Your task to perform on an android device: Clear the shopping cart on walmart.com. Add "razer deathadder" to the cart on walmart.com Image 0: 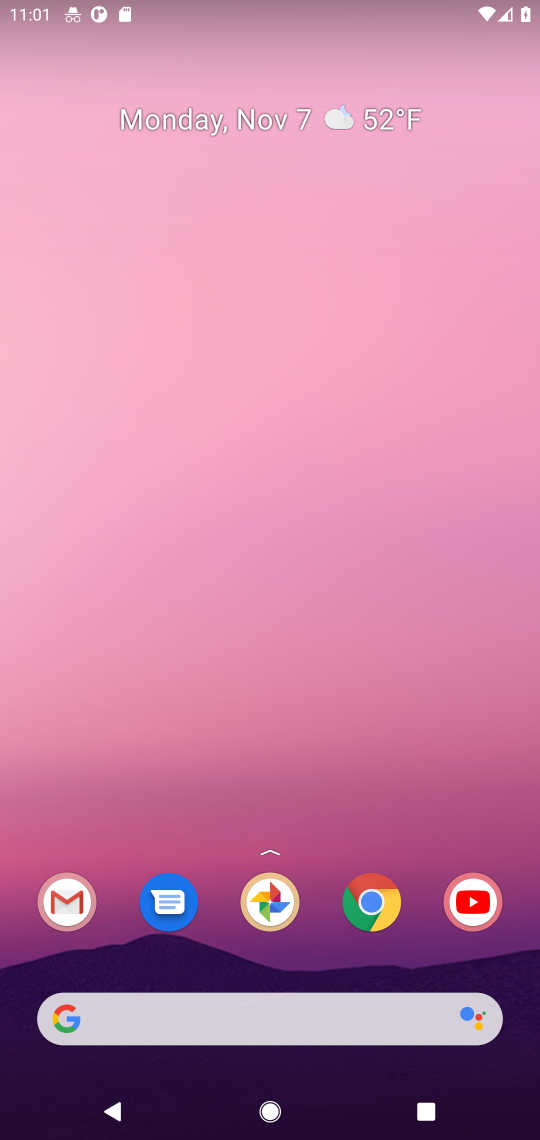
Step 0: press home button
Your task to perform on an android device: Clear the shopping cart on walmart.com. Add "razer deathadder" to the cart on walmart.com Image 1: 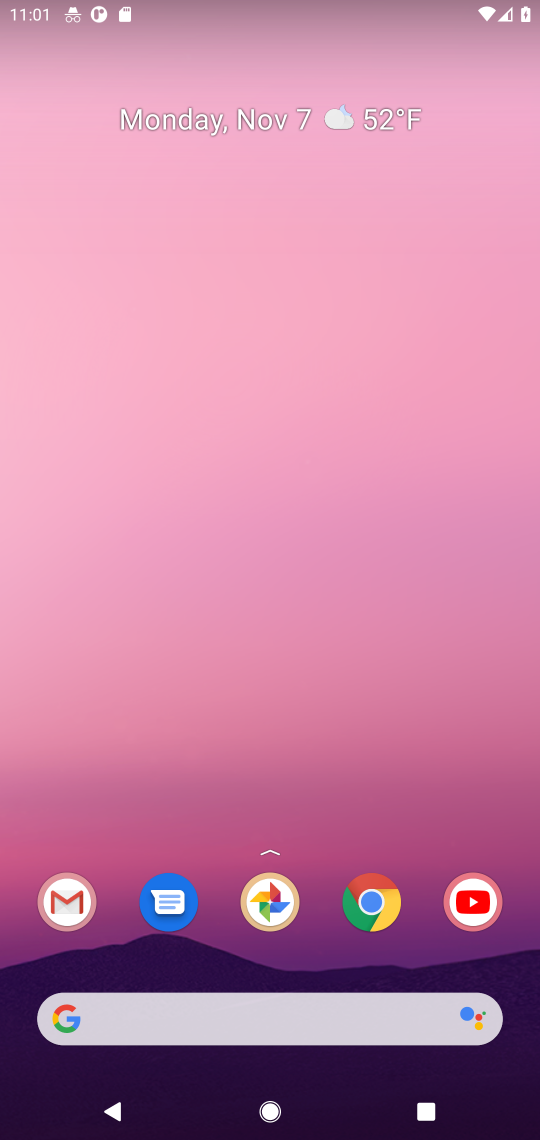
Step 1: click (353, 914)
Your task to perform on an android device: Clear the shopping cart on walmart.com. Add "razer deathadder" to the cart on walmart.com Image 2: 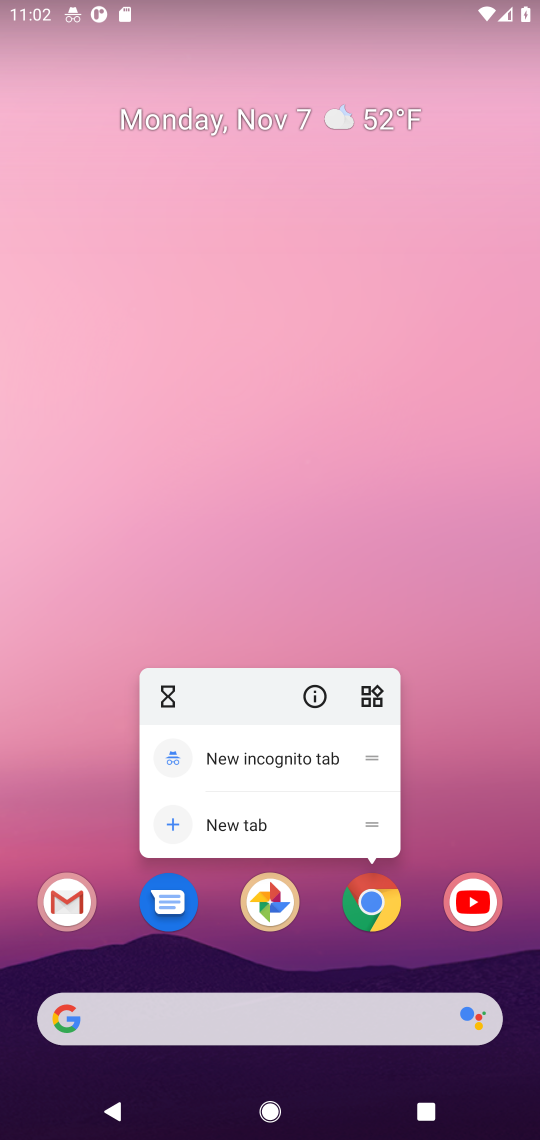
Step 2: click (367, 912)
Your task to perform on an android device: Clear the shopping cart on walmart.com. Add "razer deathadder" to the cart on walmart.com Image 3: 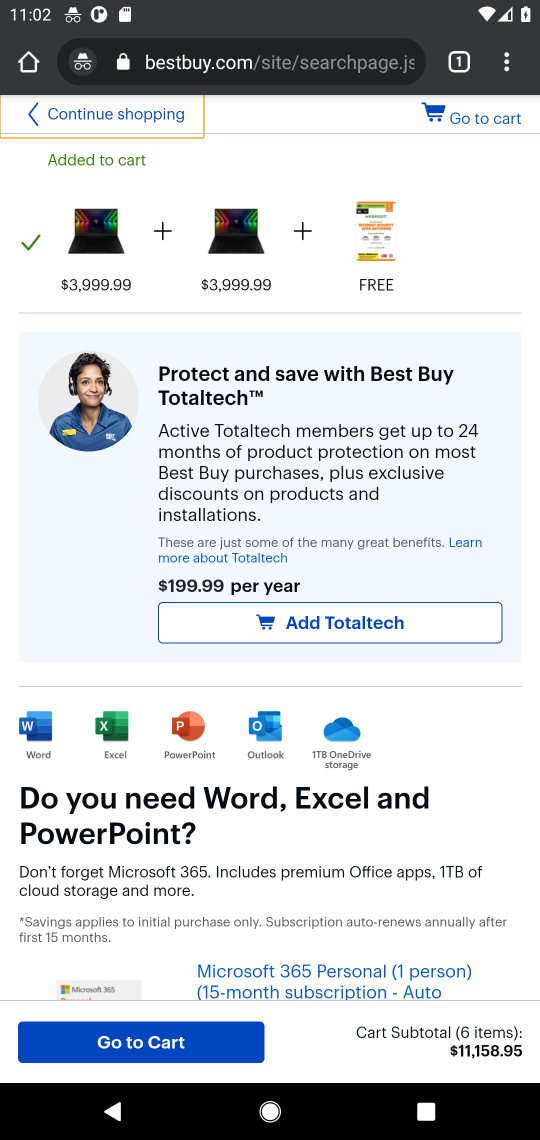
Step 3: click (227, 64)
Your task to perform on an android device: Clear the shopping cart on walmart.com. Add "razer deathadder" to the cart on walmart.com Image 4: 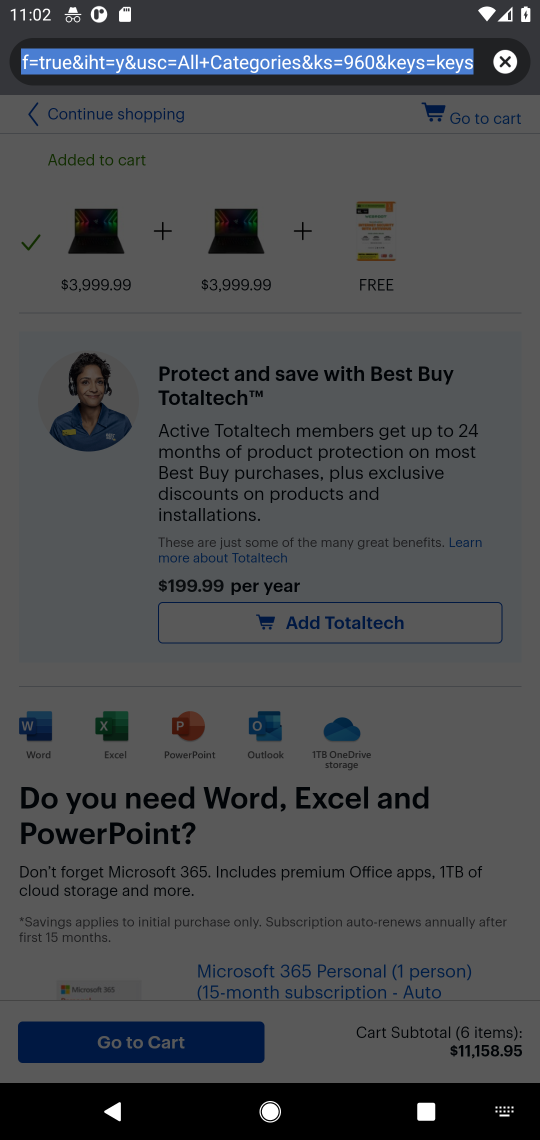
Step 4: type "walmart.com"
Your task to perform on an android device: Clear the shopping cart on walmart.com. Add "razer deathadder" to the cart on walmart.com Image 5: 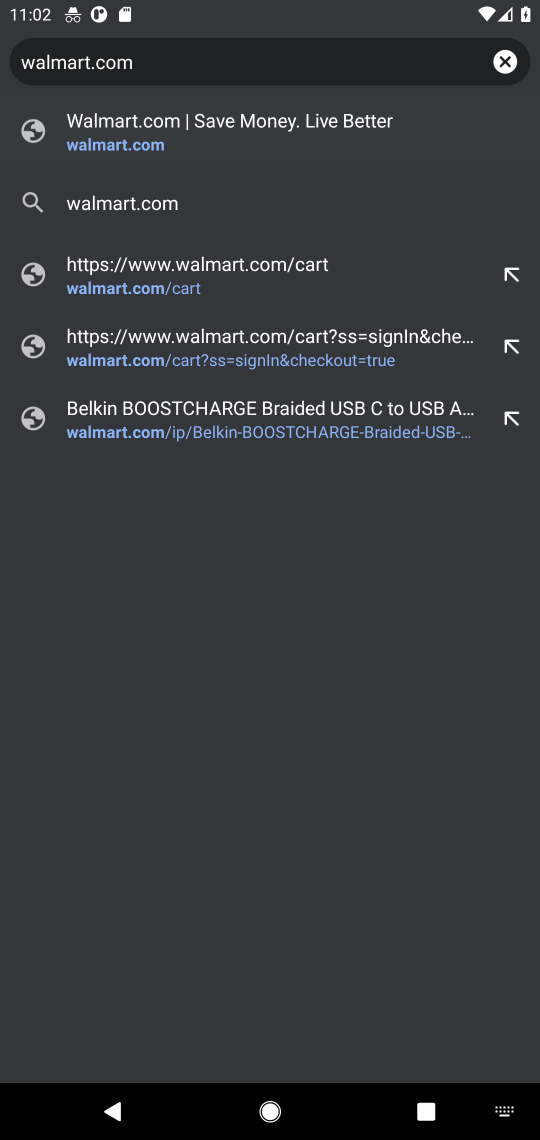
Step 5: click (113, 134)
Your task to perform on an android device: Clear the shopping cart on walmart.com. Add "razer deathadder" to the cart on walmart.com Image 6: 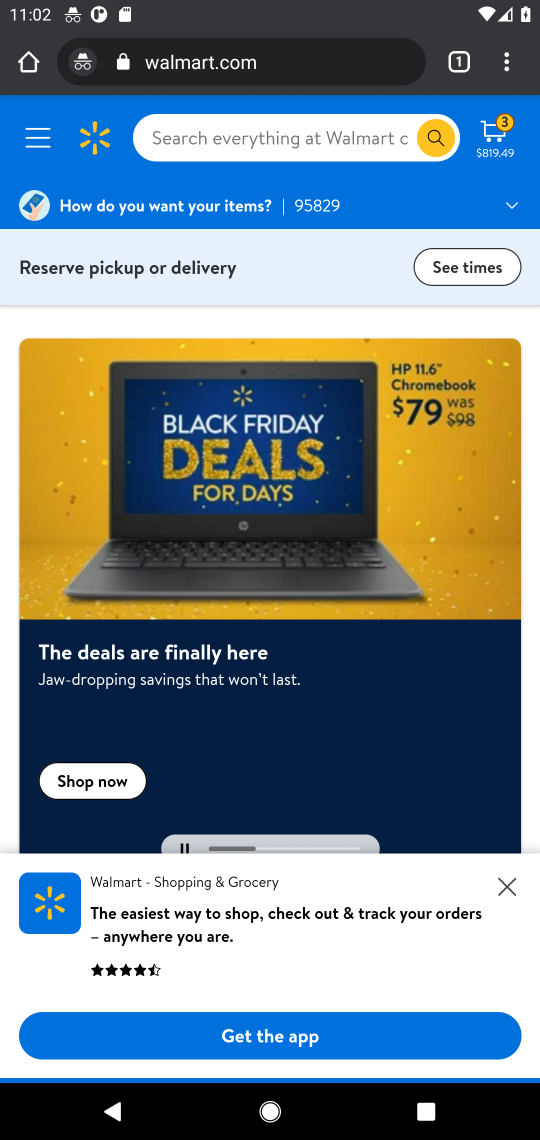
Step 6: click (493, 139)
Your task to perform on an android device: Clear the shopping cart on walmart.com. Add "razer deathadder" to the cart on walmart.com Image 7: 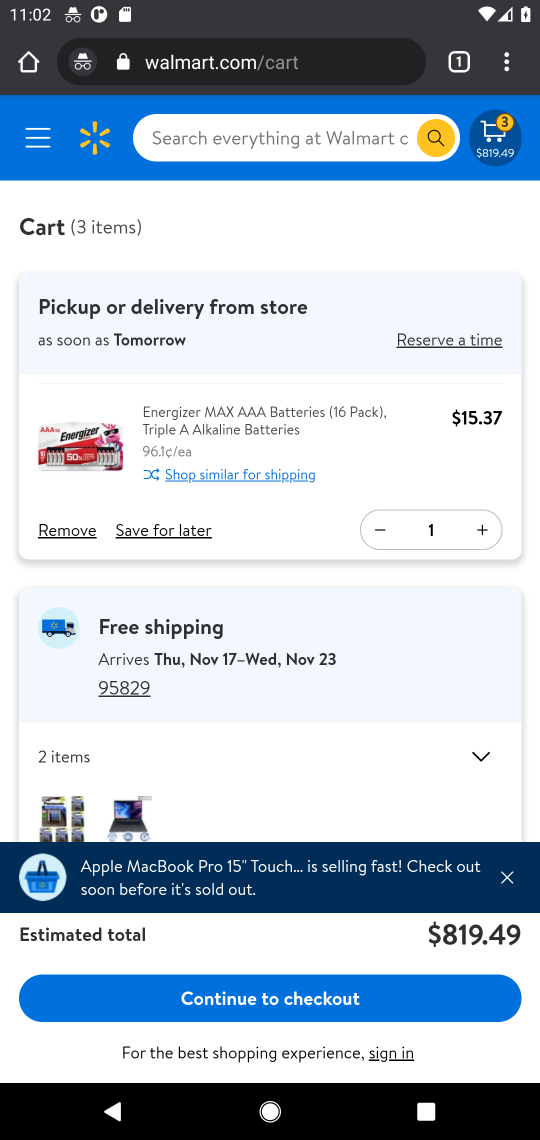
Step 7: click (49, 529)
Your task to perform on an android device: Clear the shopping cart on walmart.com. Add "razer deathadder" to the cart on walmart.com Image 8: 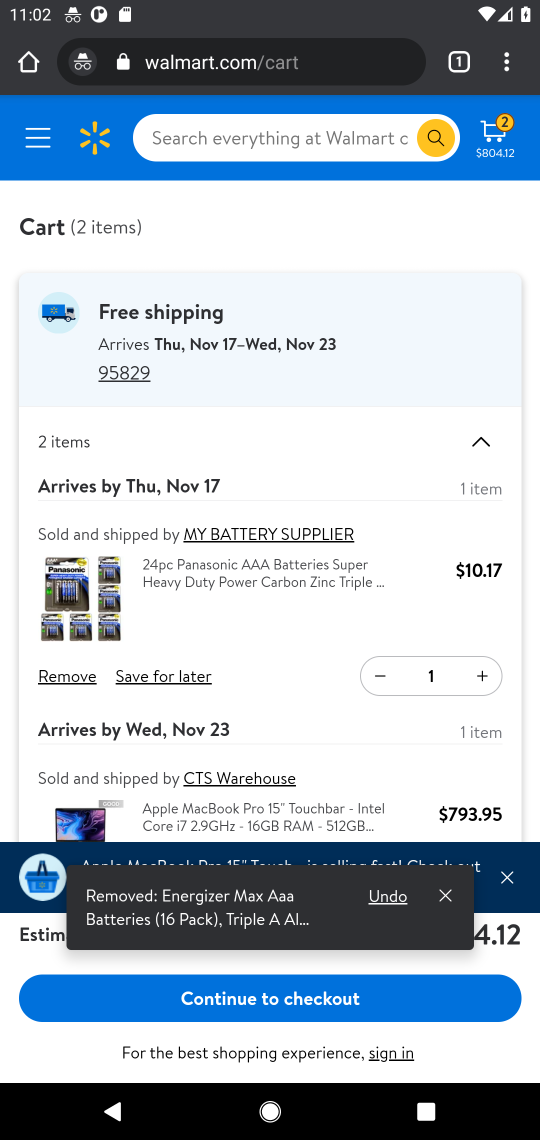
Step 8: click (81, 683)
Your task to perform on an android device: Clear the shopping cart on walmart.com. Add "razer deathadder" to the cart on walmart.com Image 9: 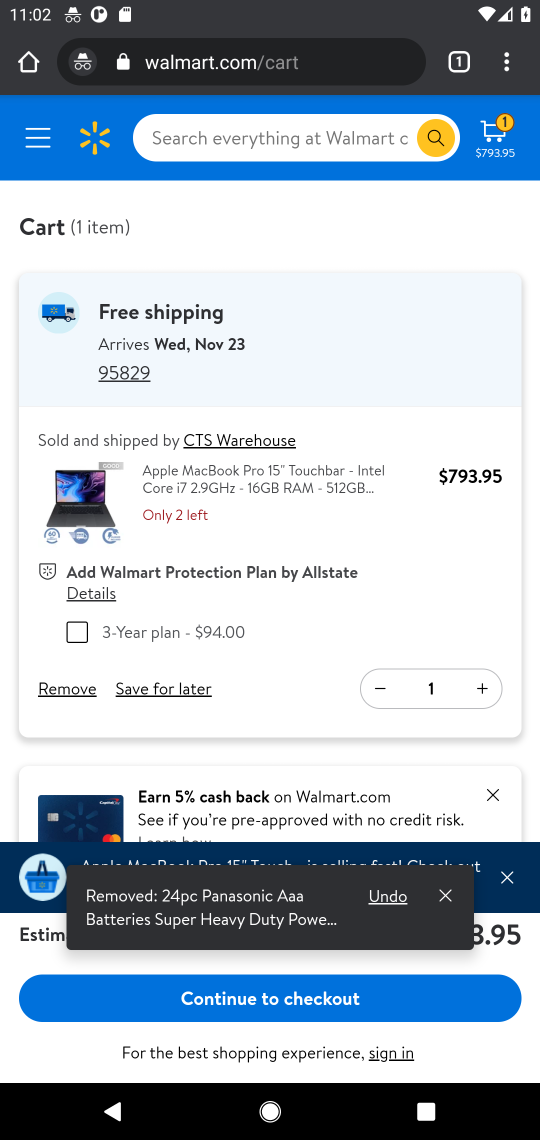
Step 9: click (56, 687)
Your task to perform on an android device: Clear the shopping cart on walmart.com. Add "razer deathadder" to the cart on walmart.com Image 10: 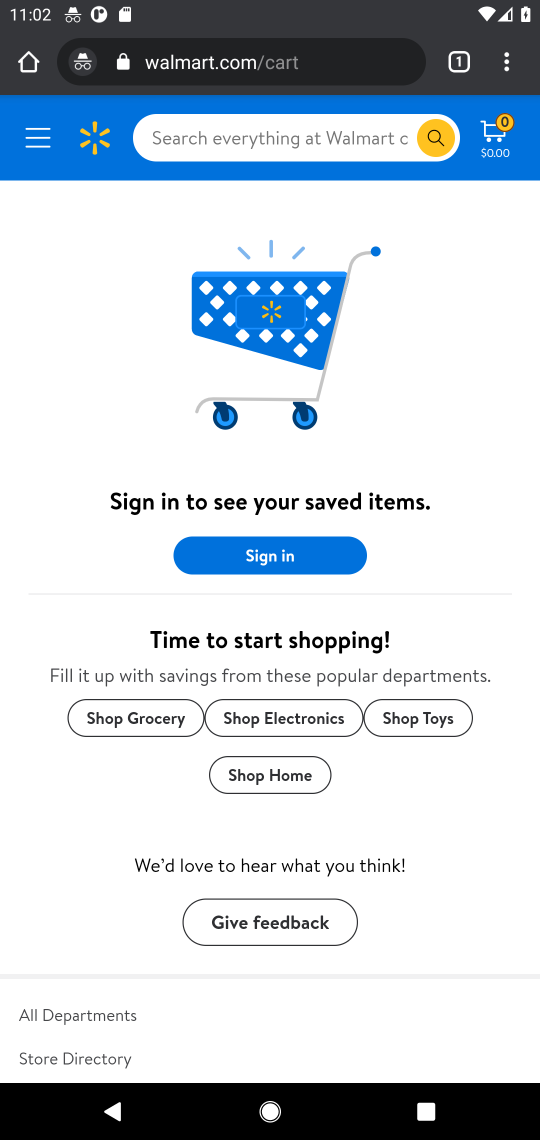
Step 10: click (229, 132)
Your task to perform on an android device: Clear the shopping cart on walmart.com. Add "razer deathadder" to the cart on walmart.com Image 11: 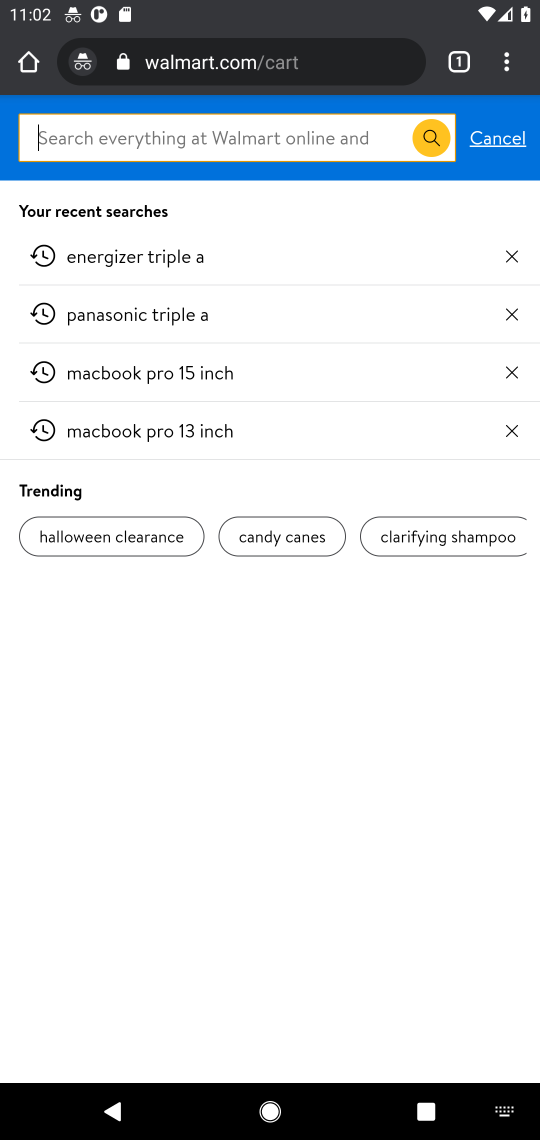
Step 11: type "razer deathadder"
Your task to perform on an android device: Clear the shopping cart on walmart.com. Add "razer deathadder" to the cart on walmart.com Image 12: 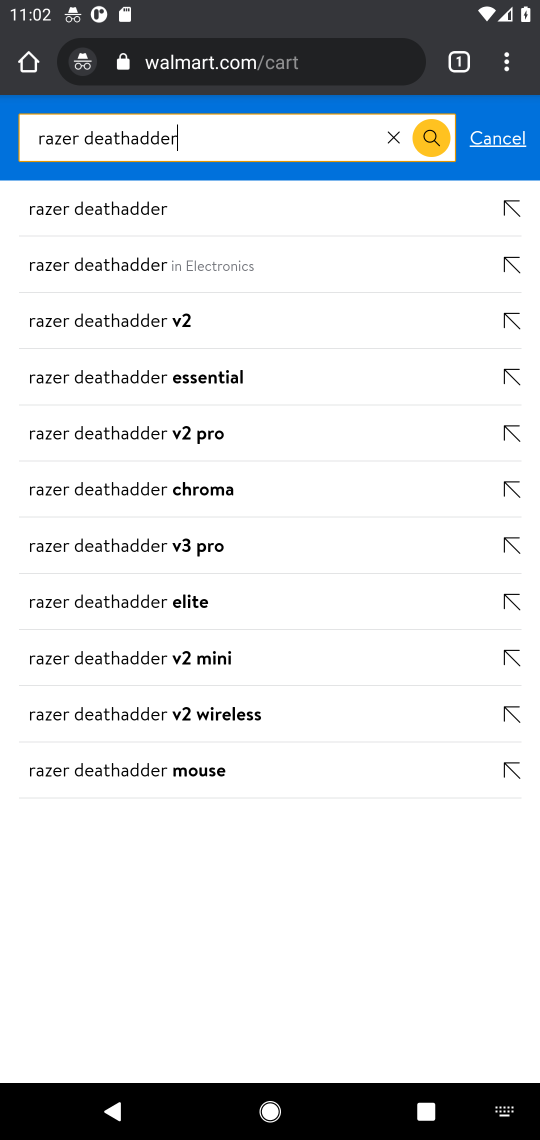
Step 12: click (103, 217)
Your task to perform on an android device: Clear the shopping cart on walmart.com. Add "razer deathadder" to the cart on walmart.com Image 13: 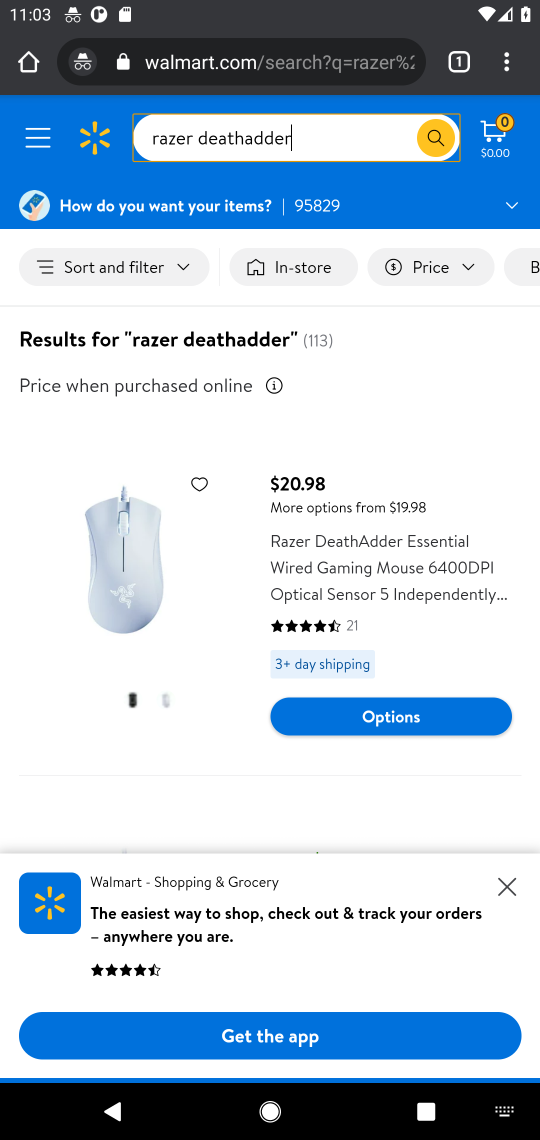
Step 13: click (169, 596)
Your task to perform on an android device: Clear the shopping cart on walmart.com. Add "razer deathadder" to the cart on walmart.com Image 14: 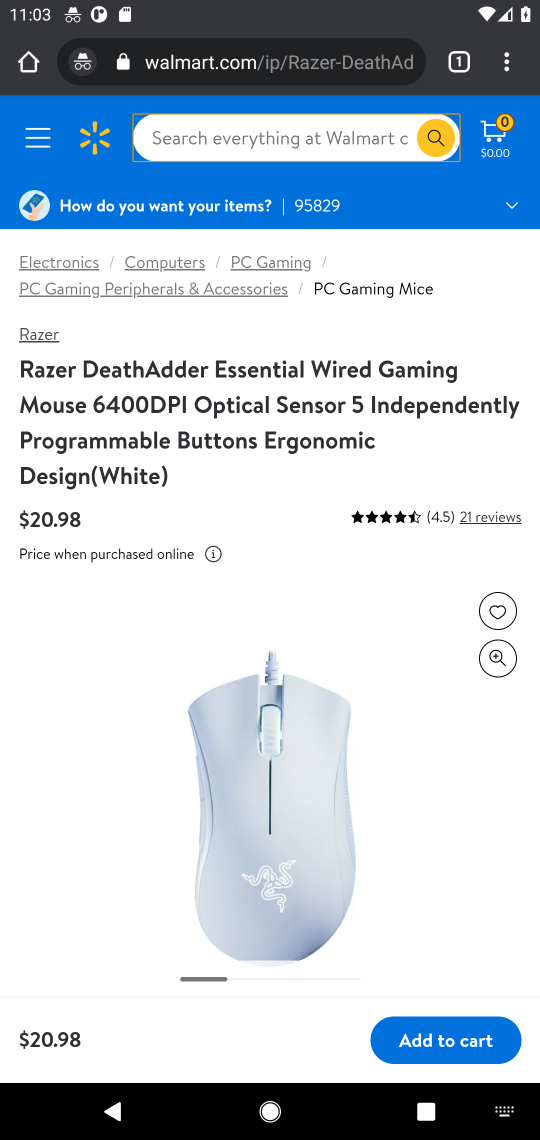
Step 14: click (441, 1035)
Your task to perform on an android device: Clear the shopping cart on walmart.com. Add "razer deathadder" to the cart on walmart.com Image 15: 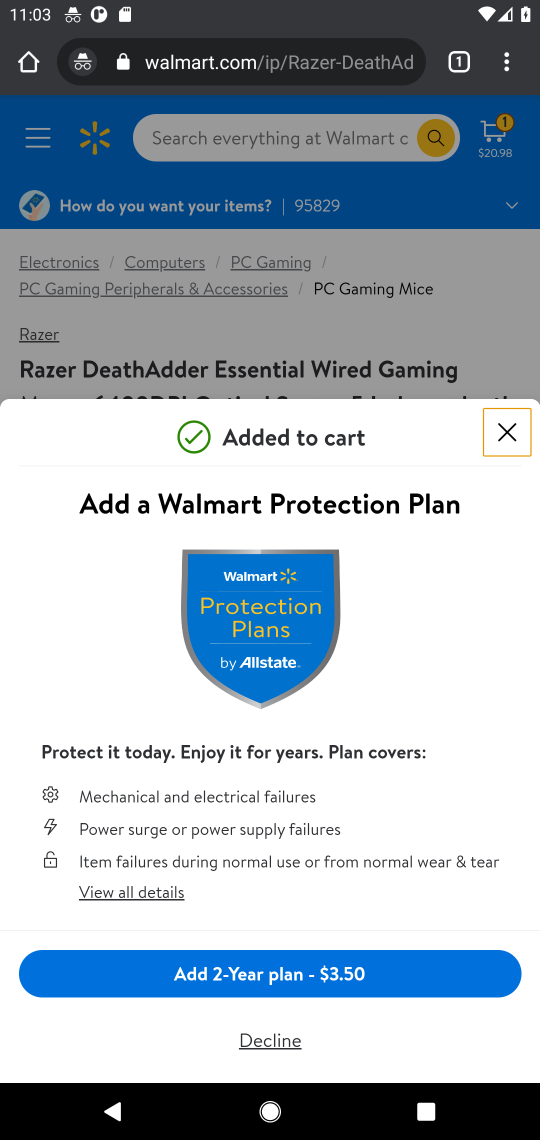
Step 15: task complete